Your task to perform on an android device: Search for vegetarian restaurants on Maps Image 0: 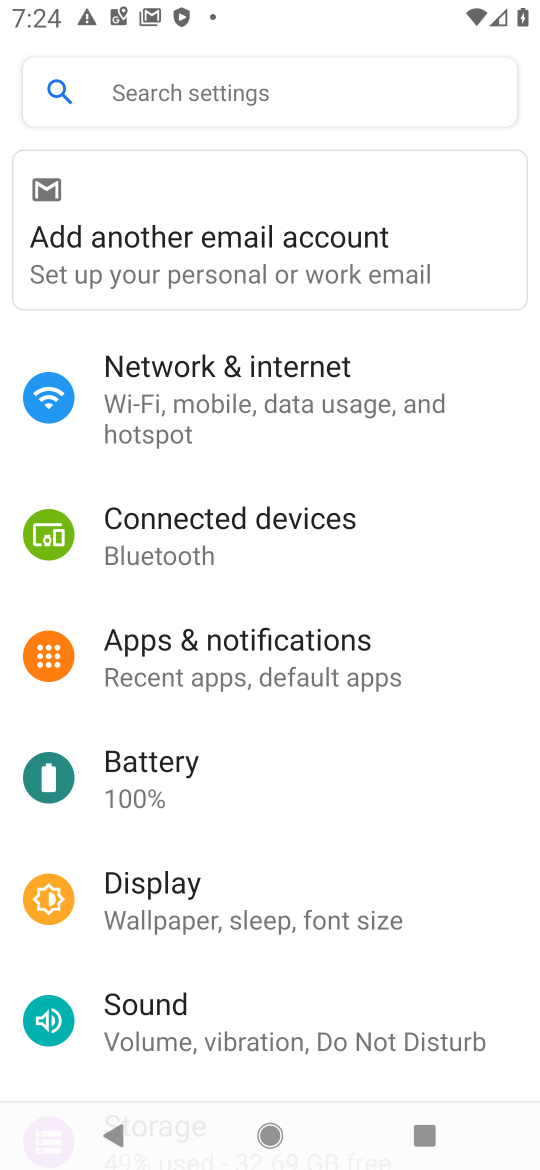
Step 0: press home button
Your task to perform on an android device: Search for vegetarian restaurants on Maps Image 1: 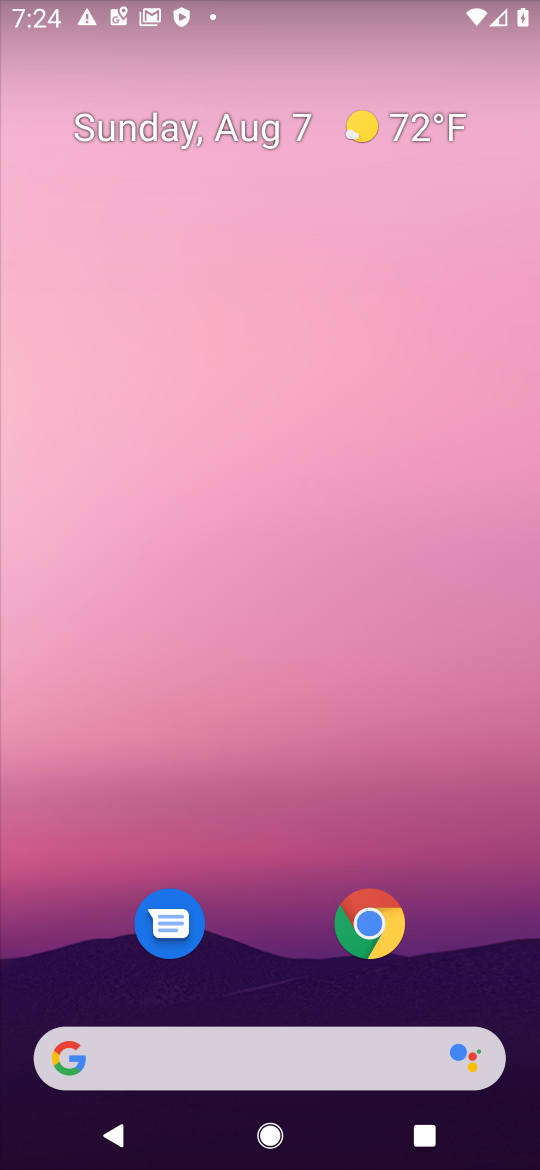
Step 1: drag from (520, 1026) to (344, 40)
Your task to perform on an android device: Search for vegetarian restaurants on Maps Image 2: 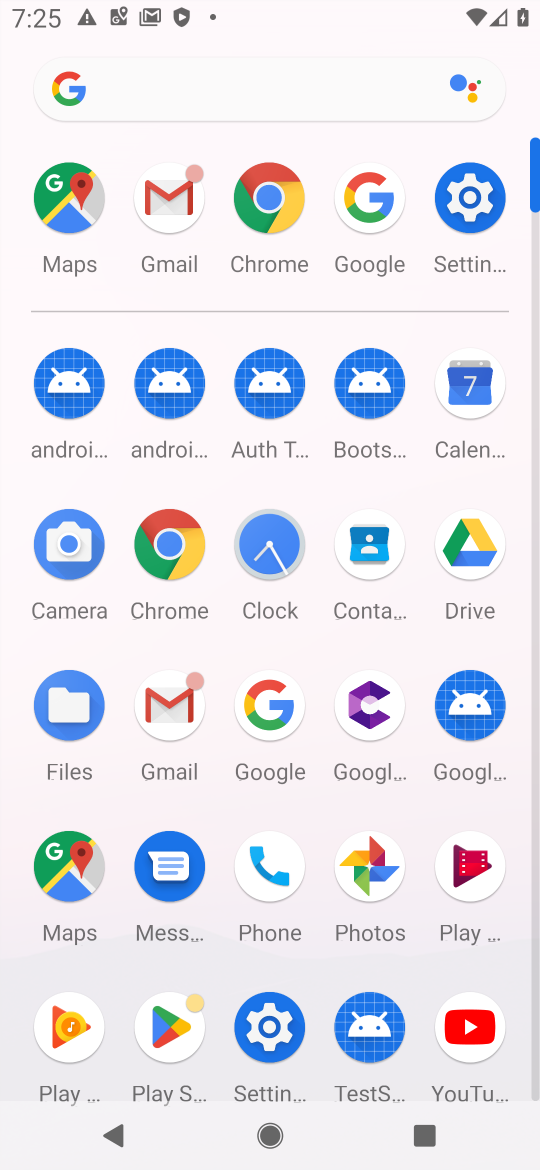
Step 2: click (86, 857)
Your task to perform on an android device: Search for vegetarian restaurants on Maps Image 3: 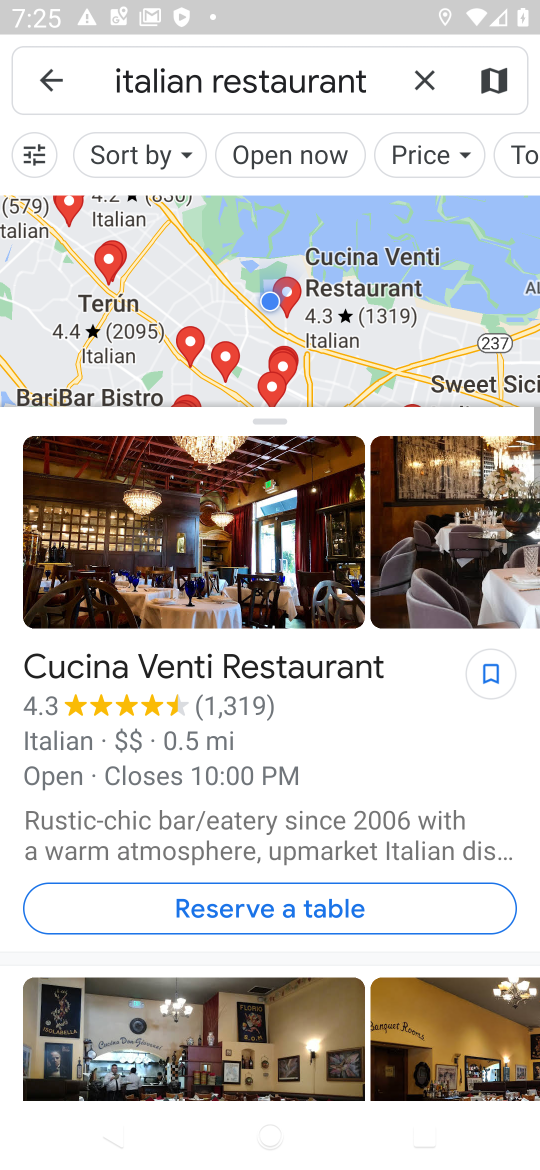
Step 3: click (428, 78)
Your task to perform on an android device: Search for vegetarian restaurants on Maps Image 4: 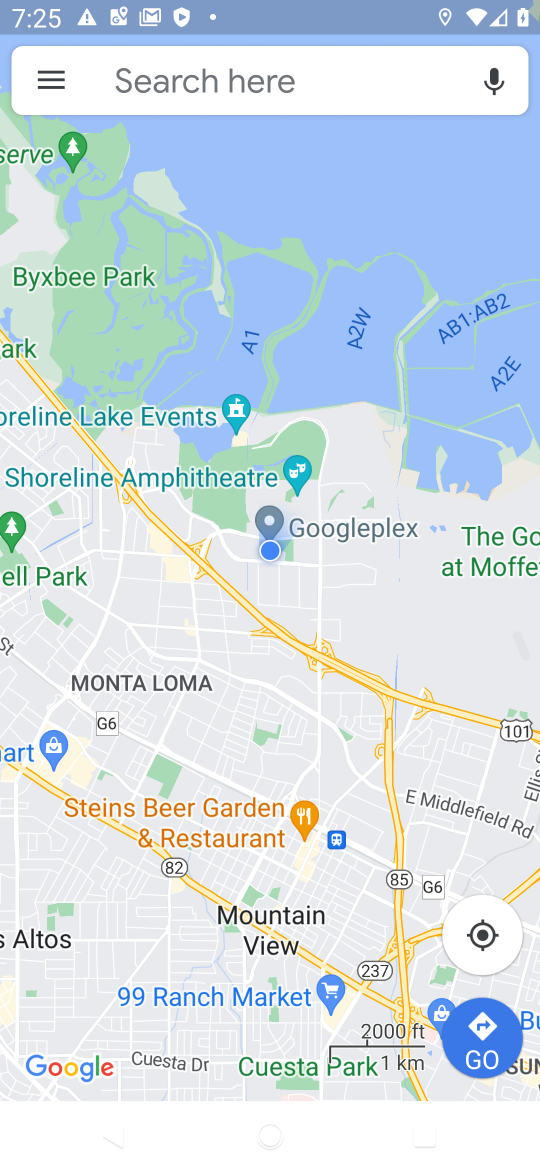
Step 4: click (224, 76)
Your task to perform on an android device: Search for vegetarian restaurants on Maps Image 5: 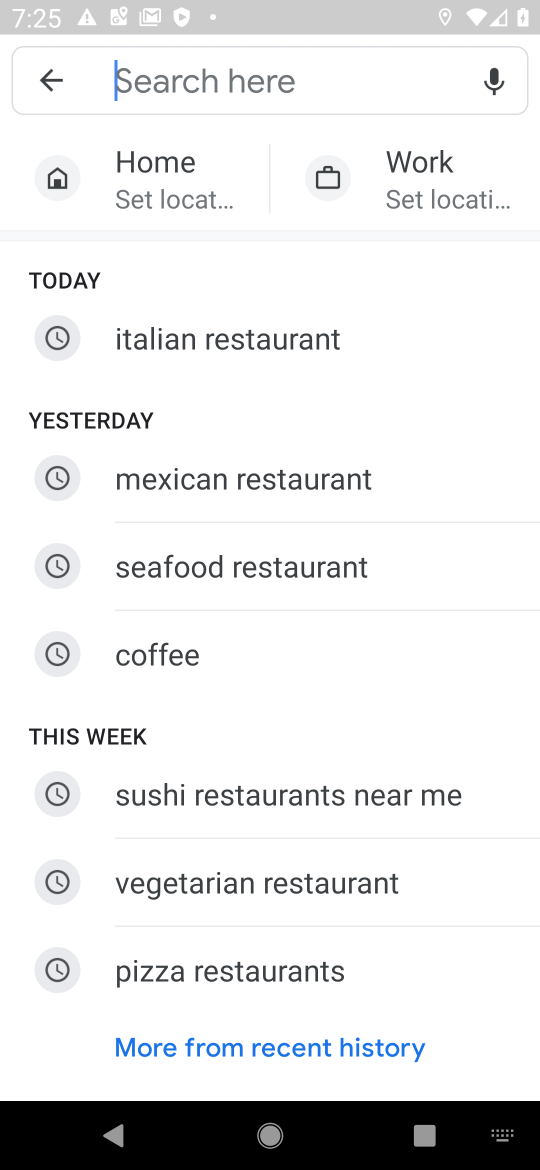
Step 5: click (202, 888)
Your task to perform on an android device: Search for vegetarian restaurants on Maps Image 6: 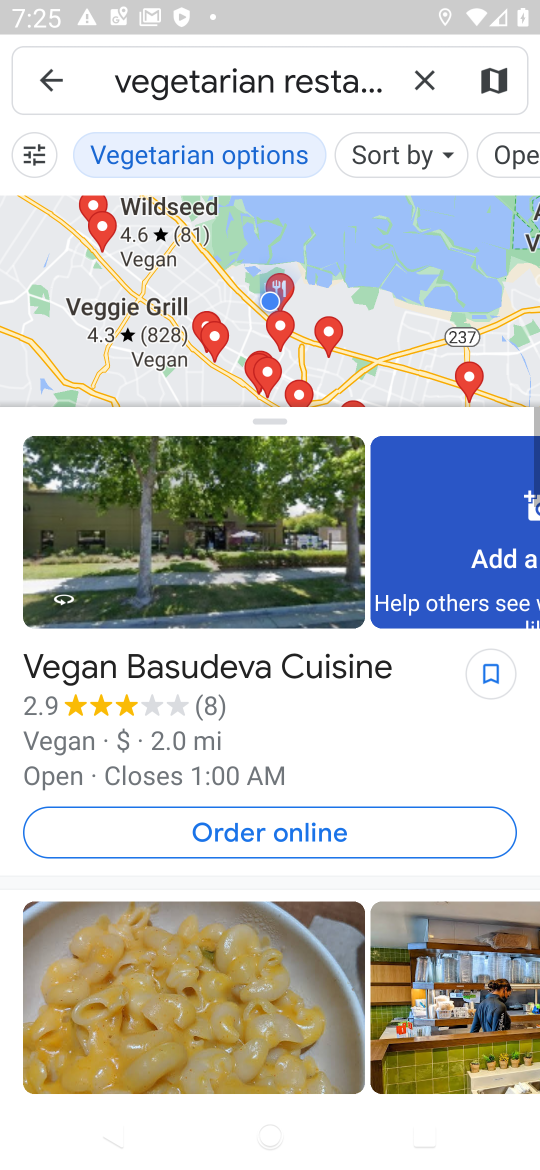
Step 6: task complete